Your task to perform on an android device: find snoozed emails in the gmail app Image 0: 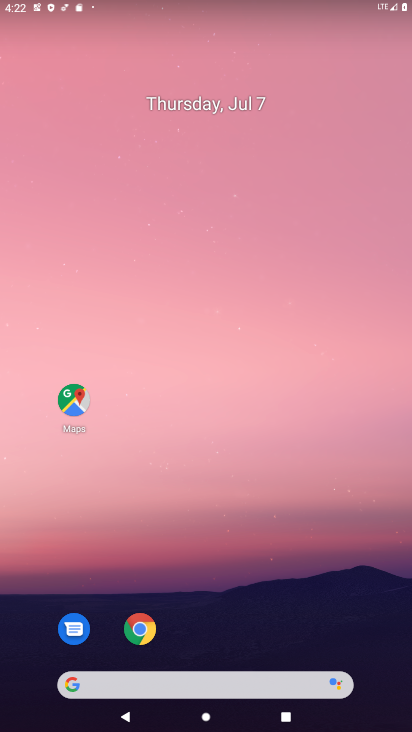
Step 0: drag from (248, 680) to (249, 323)
Your task to perform on an android device: find snoozed emails in the gmail app Image 1: 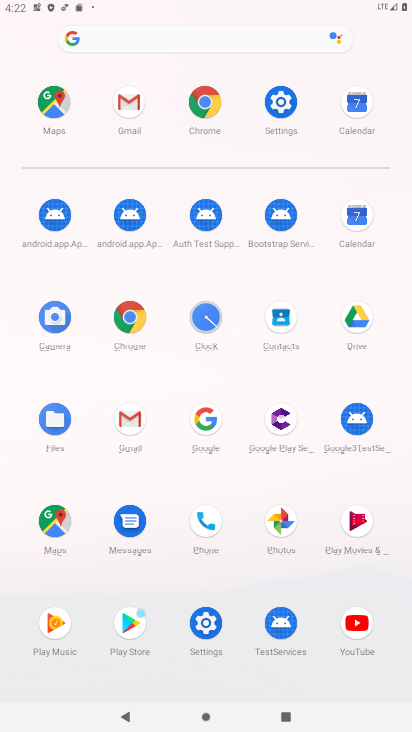
Step 1: click (124, 104)
Your task to perform on an android device: find snoozed emails in the gmail app Image 2: 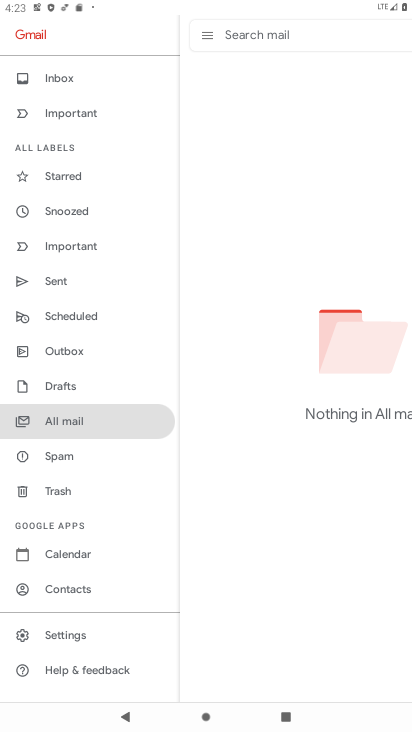
Step 2: click (88, 205)
Your task to perform on an android device: find snoozed emails in the gmail app Image 3: 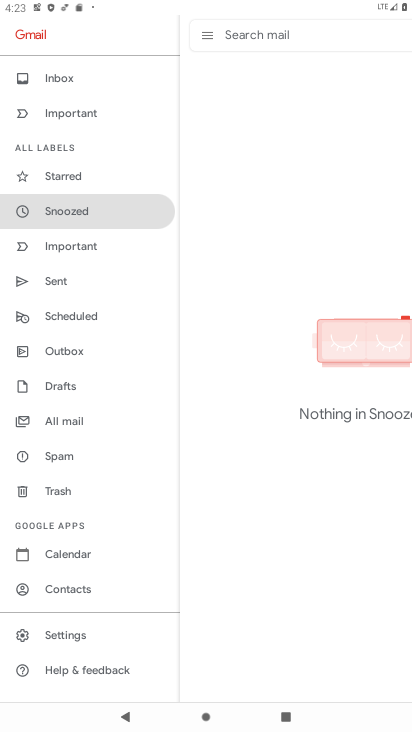
Step 3: click (88, 205)
Your task to perform on an android device: find snoozed emails in the gmail app Image 4: 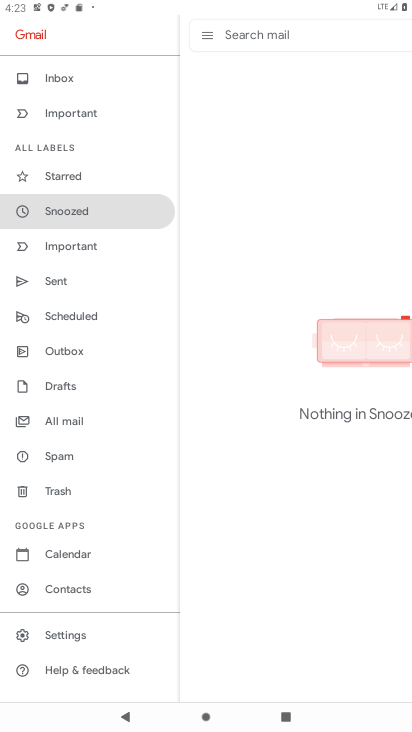
Step 4: click (110, 205)
Your task to perform on an android device: find snoozed emails in the gmail app Image 5: 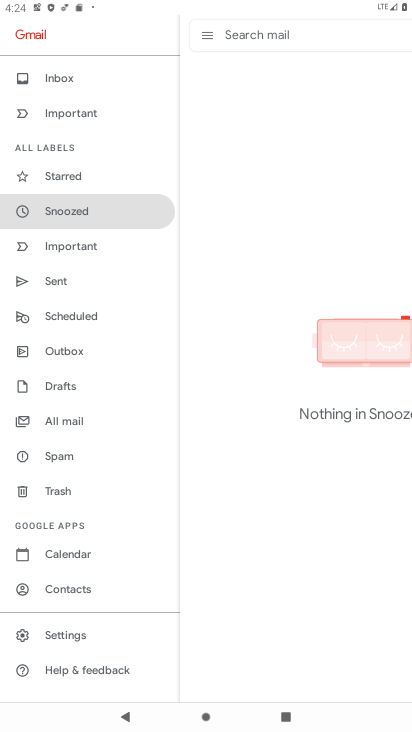
Step 5: task complete